Your task to perform on an android device: turn off sleep mode Image 0: 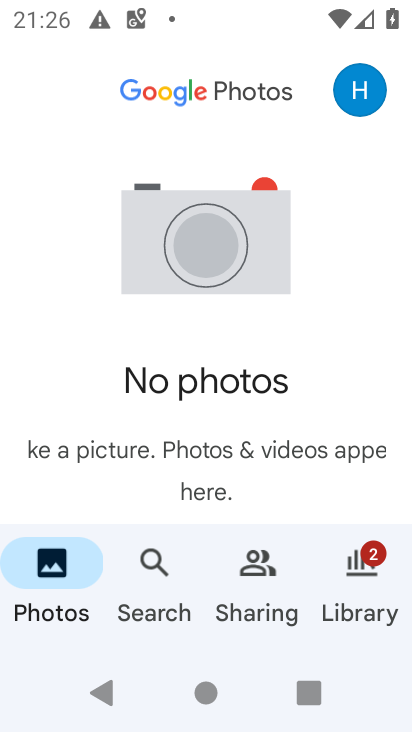
Step 0: press home button
Your task to perform on an android device: turn off sleep mode Image 1: 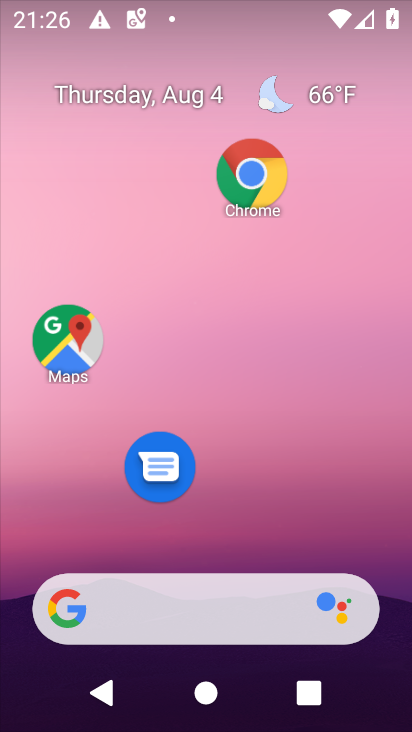
Step 1: drag from (251, 507) to (253, 5)
Your task to perform on an android device: turn off sleep mode Image 2: 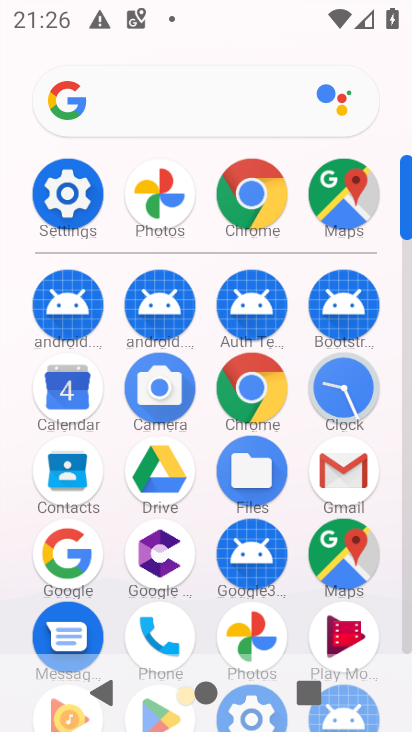
Step 2: click (73, 190)
Your task to perform on an android device: turn off sleep mode Image 3: 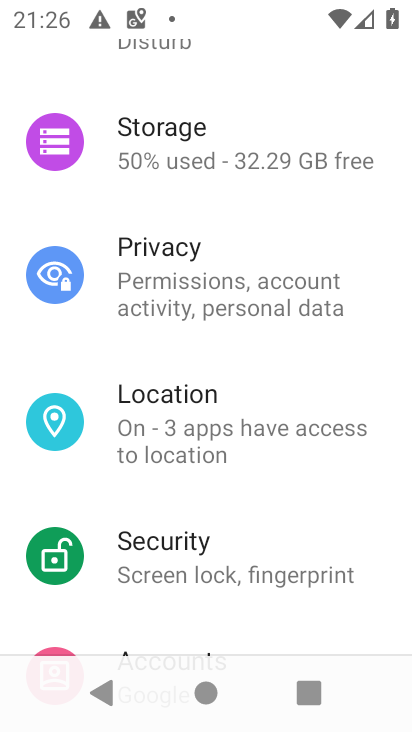
Step 3: drag from (255, 96) to (239, 503)
Your task to perform on an android device: turn off sleep mode Image 4: 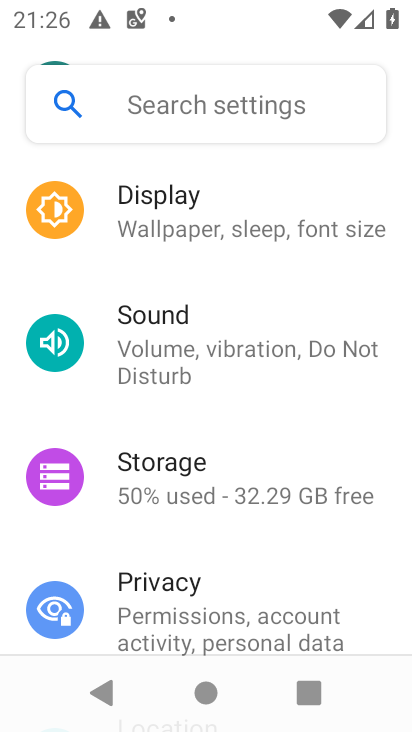
Step 4: drag from (222, 646) to (411, 303)
Your task to perform on an android device: turn off sleep mode Image 5: 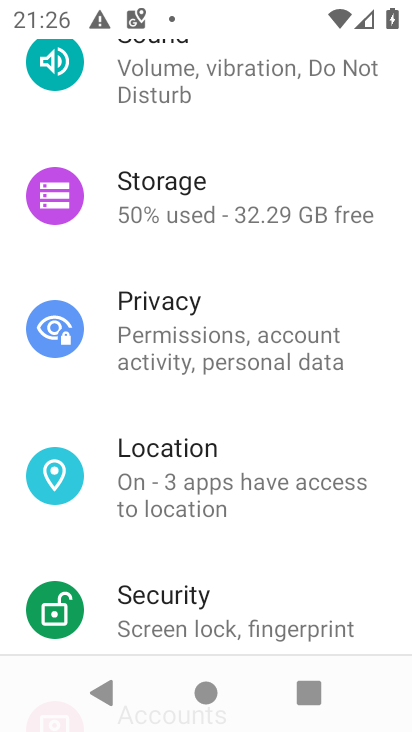
Step 5: drag from (248, 125) to (214, 693)
Your task to perform on an android device: turn off sleep mode Image 6: 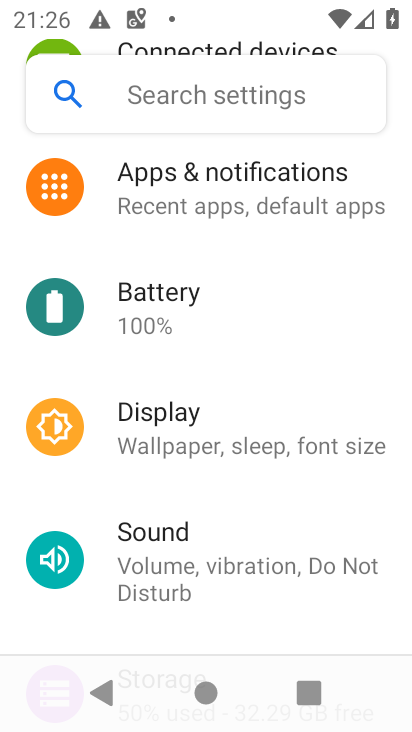
Step 6: drag from (206, 294) to (157, 594)
Your task to perform on an android device: turn off sleep mode Image 7: 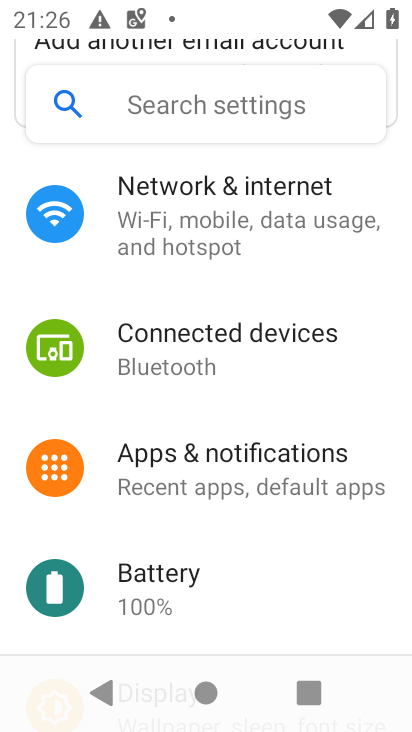
Step 7: drag from (195, 548) to (220, 220)
Your task to perform on an android device: turn off sleep mode Image 8: 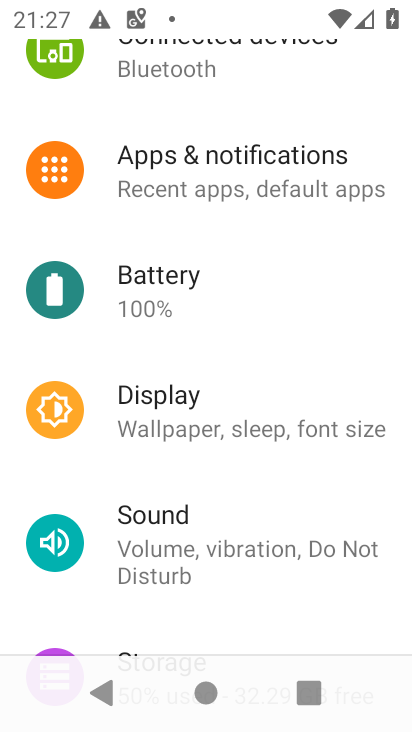
Step 8: click (184, 429)
Your task to perform on an android device: turn off sleep mode Image 9: 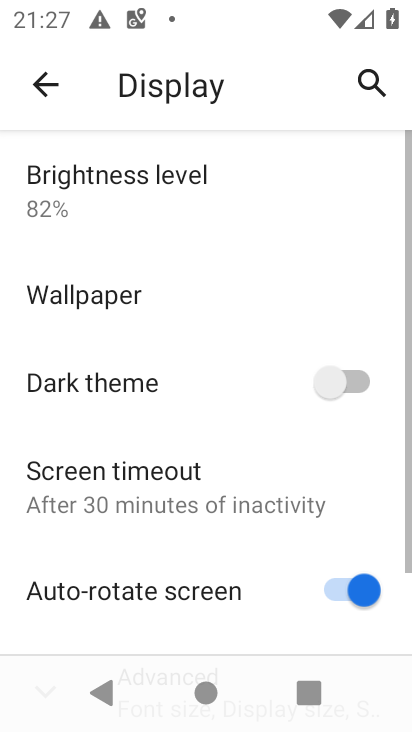
Step 9: task complete